Your task to perform on an android device: open app "Mercado Libre" Image 0: 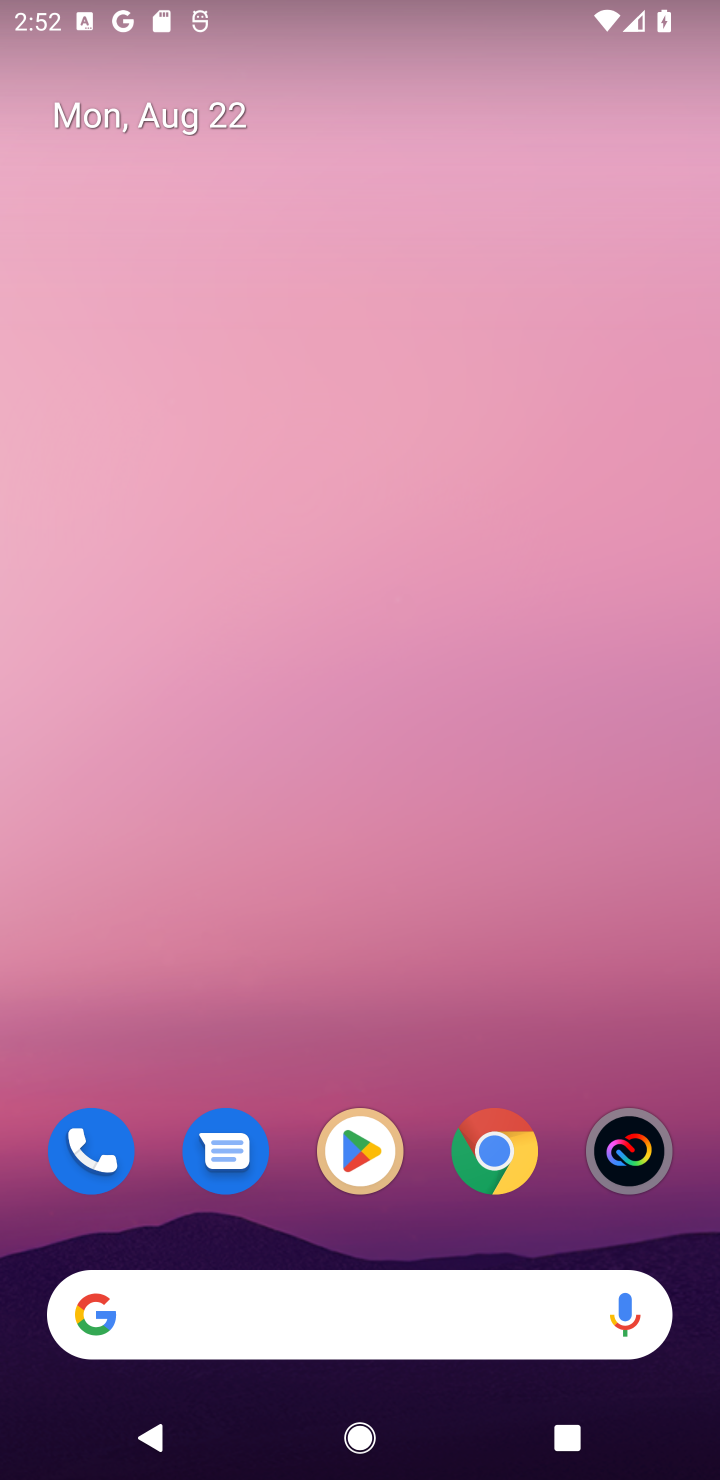
Step 0: click (364, 1156)
Your task to perform on an android device: open app "Mercado Libre" Image 1: 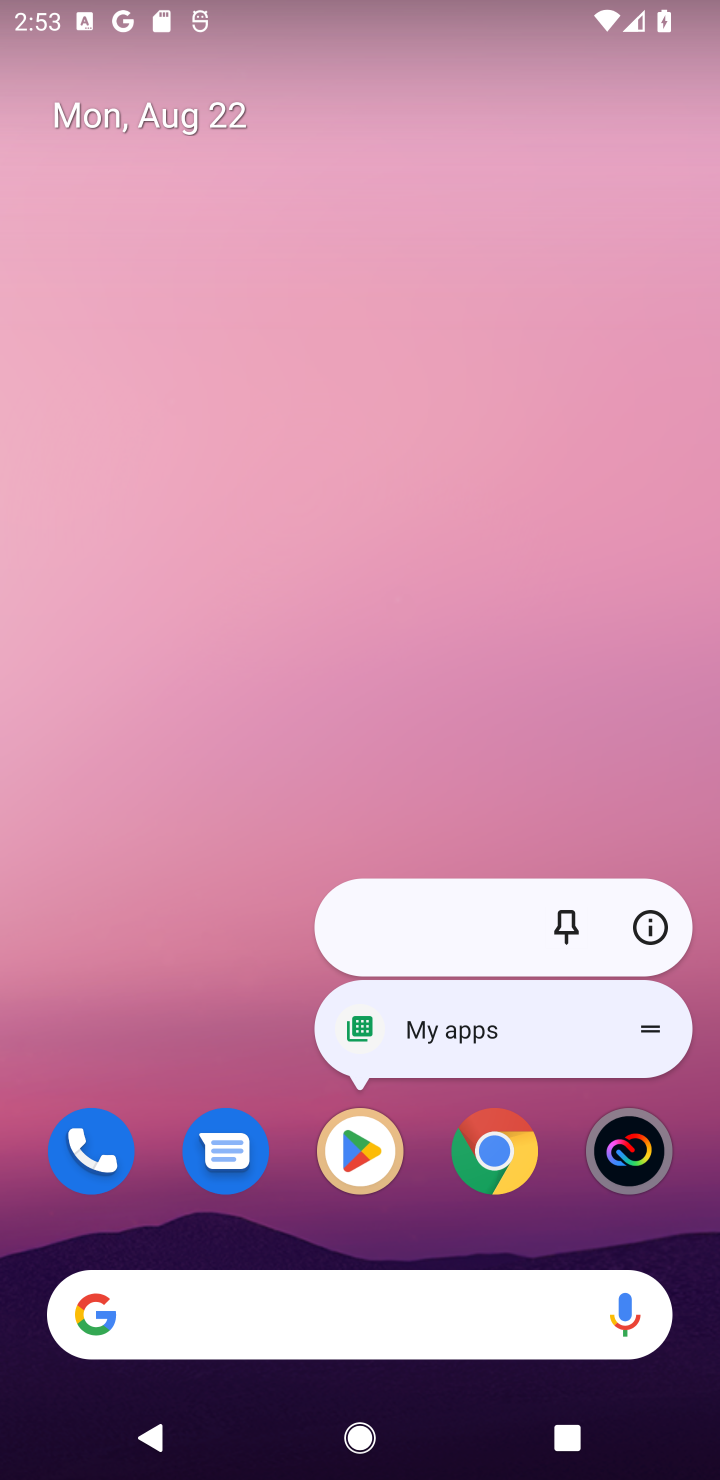
Step 1: click (364, 1173)
Your task to perform on an android device: open app "Mercado Libre" Image 2: 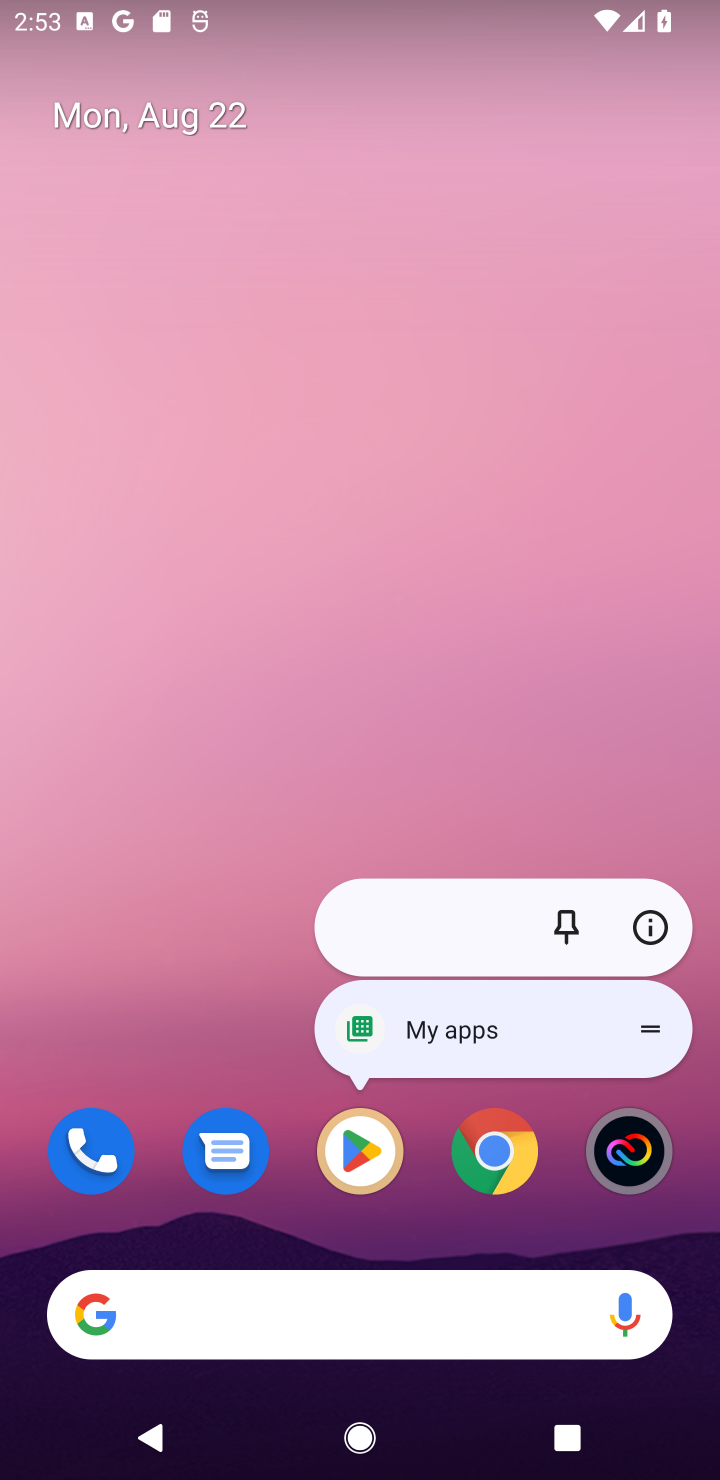
Step 2: click (364, 1171)
Your task to perform on an android device: open app "Mercado Libre" Image 3: 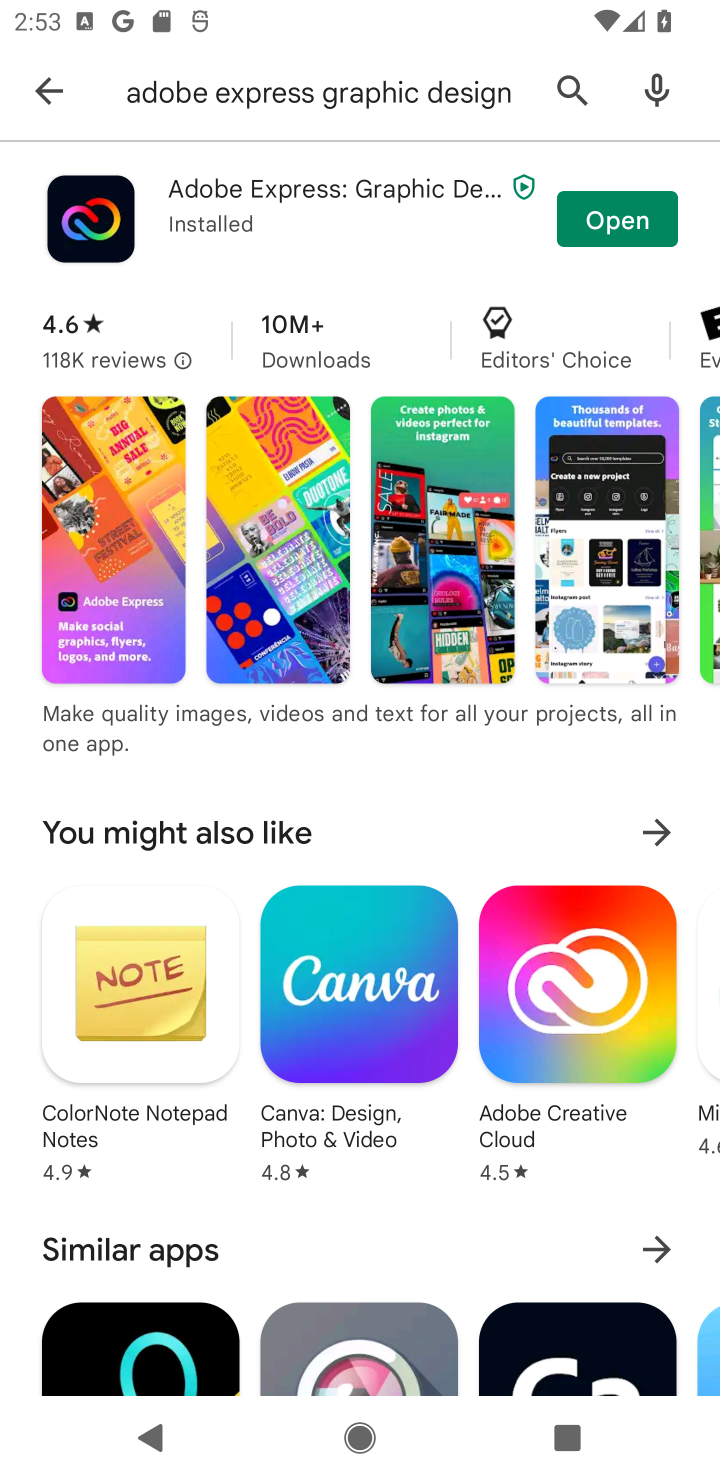
Step 3: click (561, 80)
Your task to perform on an android device: open app "Mercado Libre" Image 4: 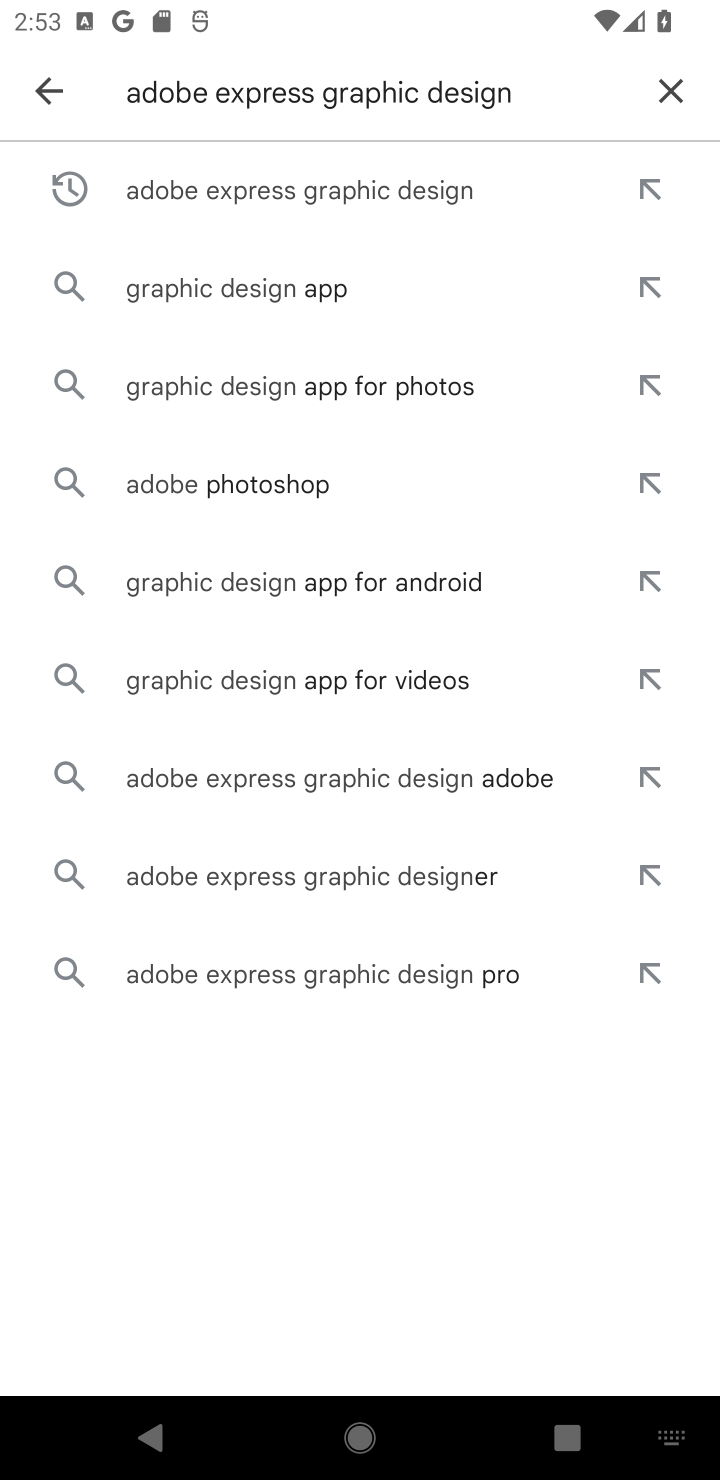
Step 4: click (676, 90)
Your task to perform on an android device: open app "Mercado Libre" Image 5: 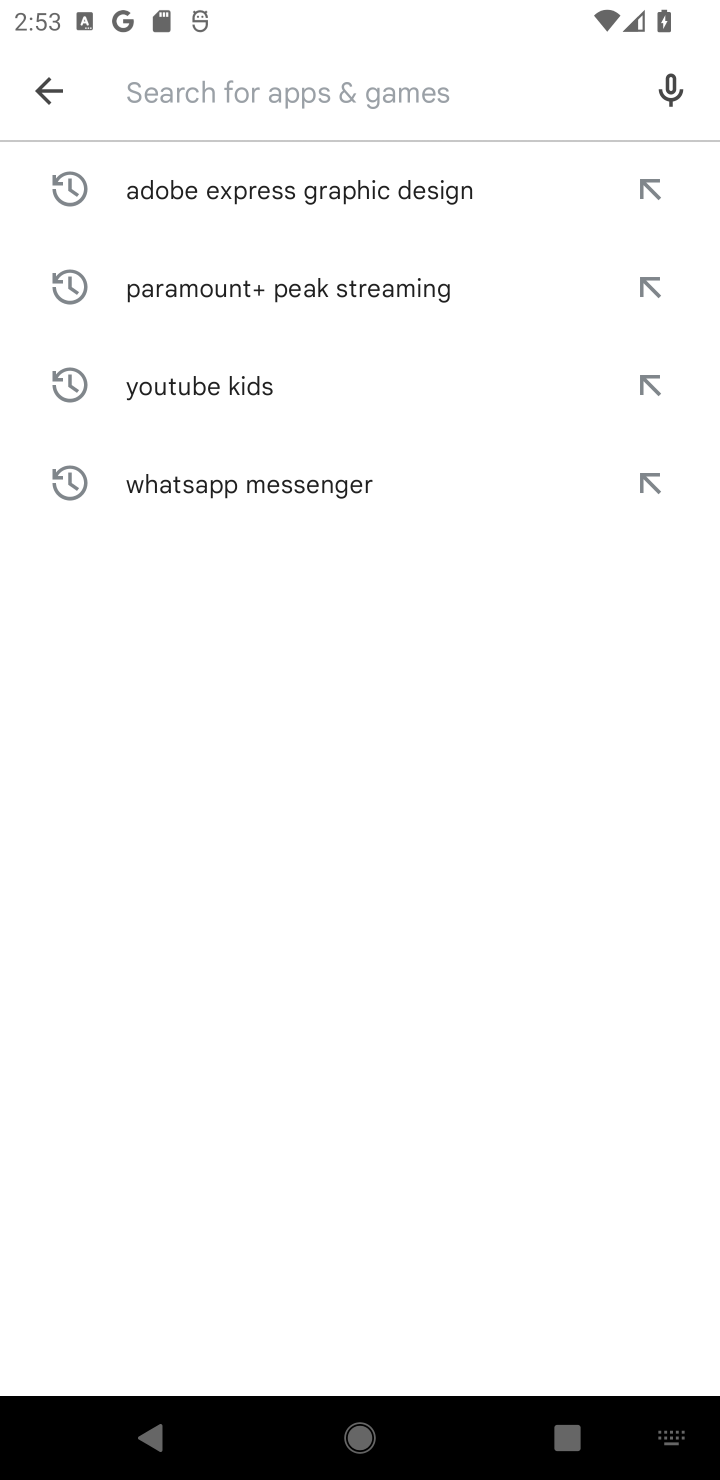
Step 5: type ""Mercado Libre"
Your task to perform on an android device: open app "Mercado Libre" Image 6: 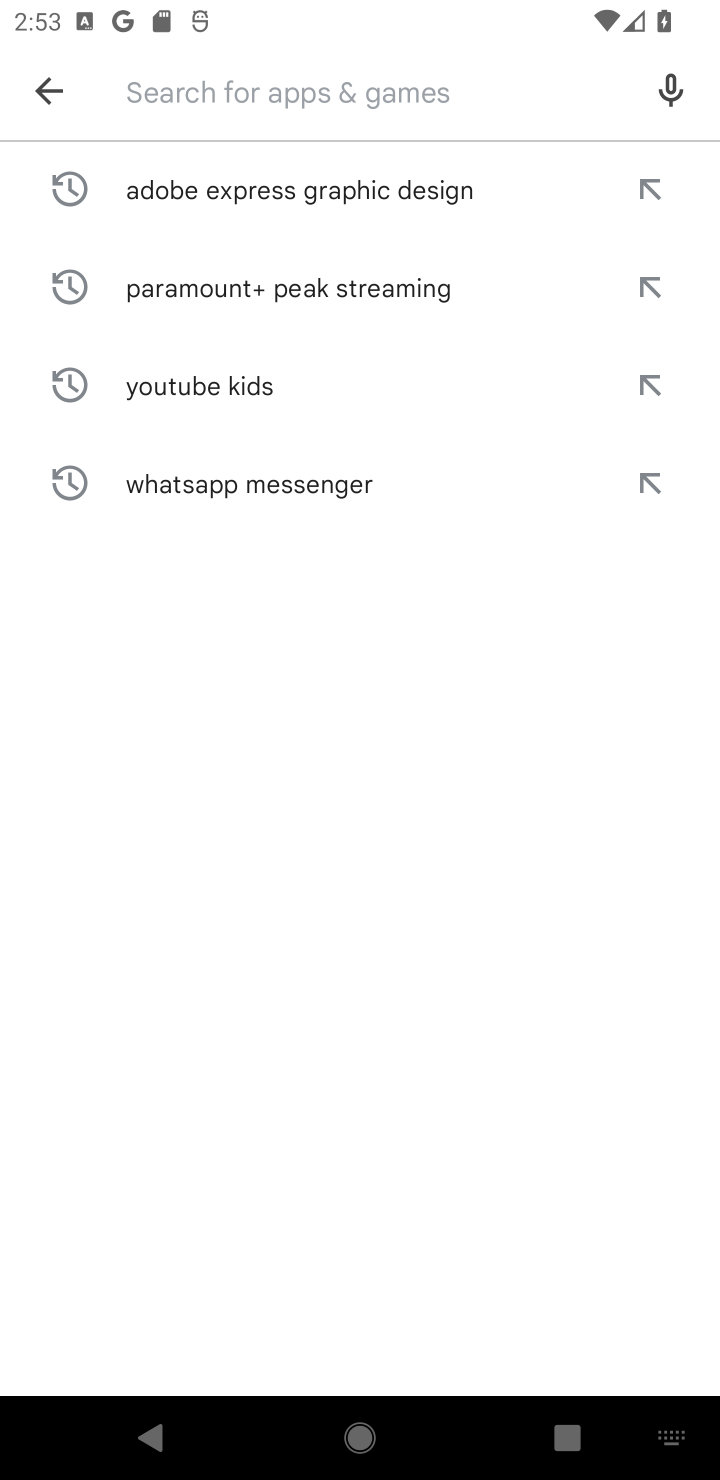
Step 6: type "Mercado Libre"
Your task to perform on an android device: open app "Mercado Libre" Image 7: 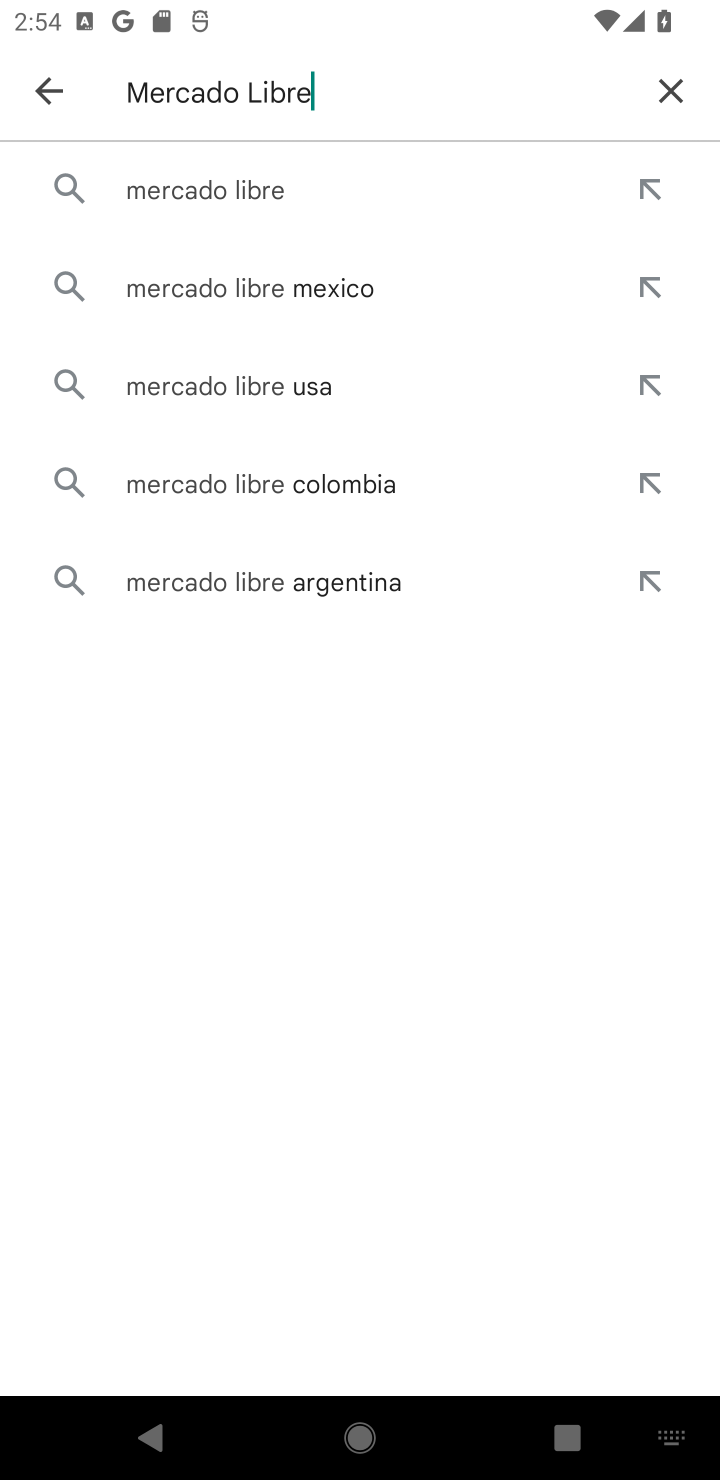
Step 7: click (149, 183)
Your task to perform on an android device: open app "Mercado Libre" Image 8: 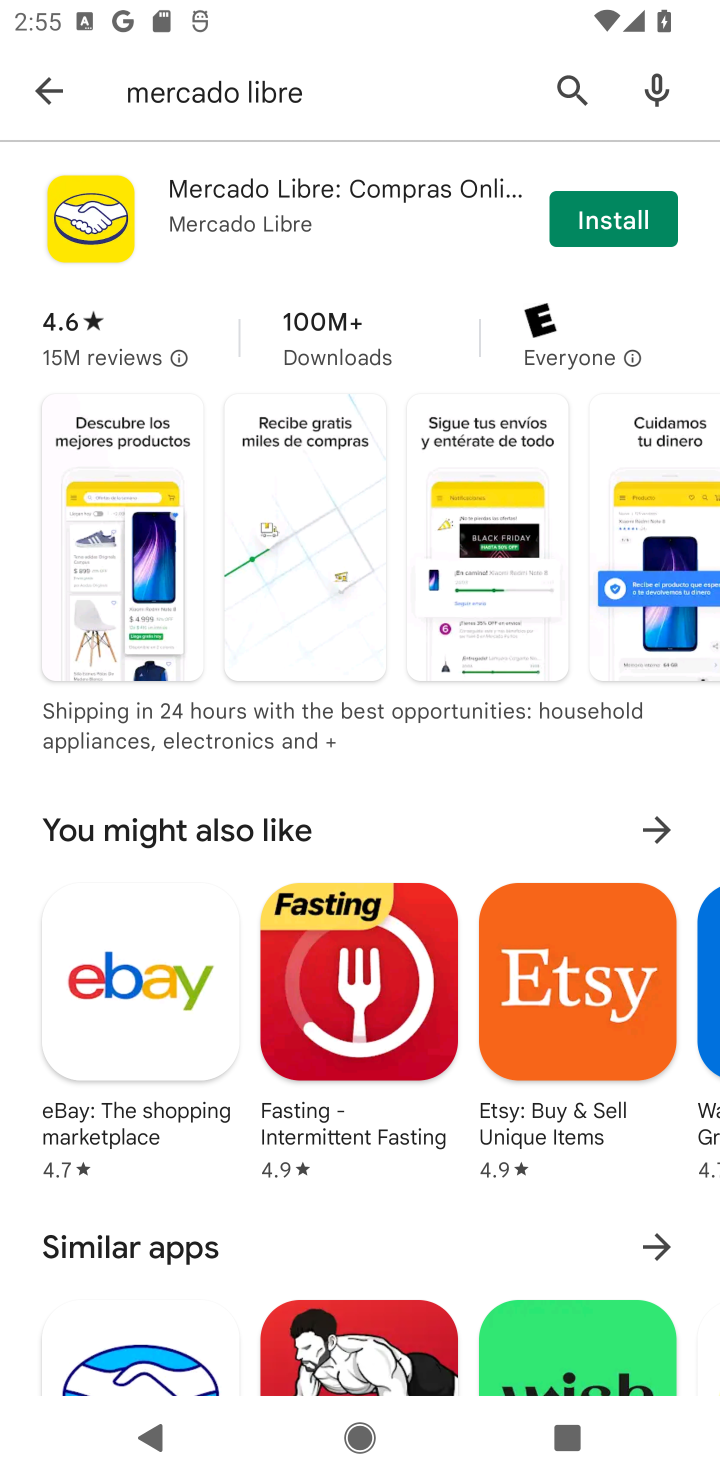
Step 8: task complete